Your task to perform on an android device: Open the calendar app, open the side menu, and click the "Day" option Image 0: 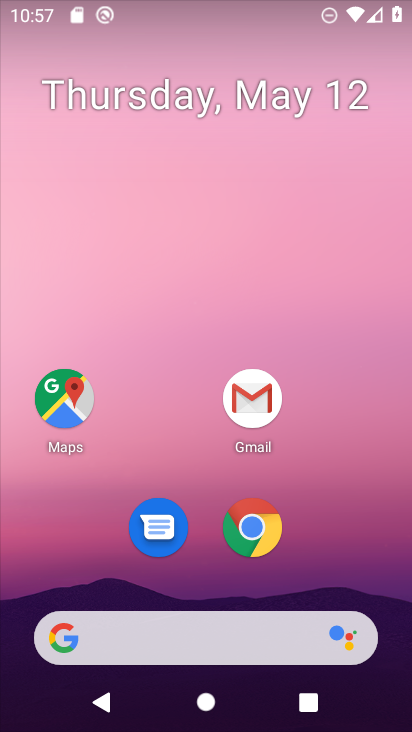
Step 0: drag from (335, 539) to (335, 56)
Your task to perform on an android device: Open the calendar app, open the side menu, and click the "Day" option Image 1: 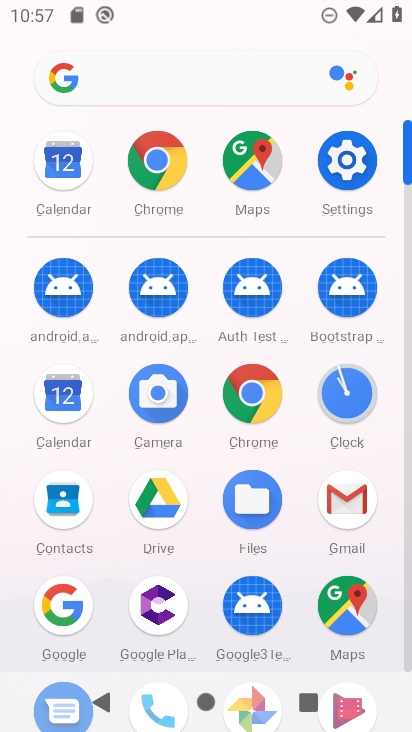
Step 1: click (348, 178)
Your task to perform on an android device: Open the calendar app, open the side menu, and click the "Day" option Image 2: 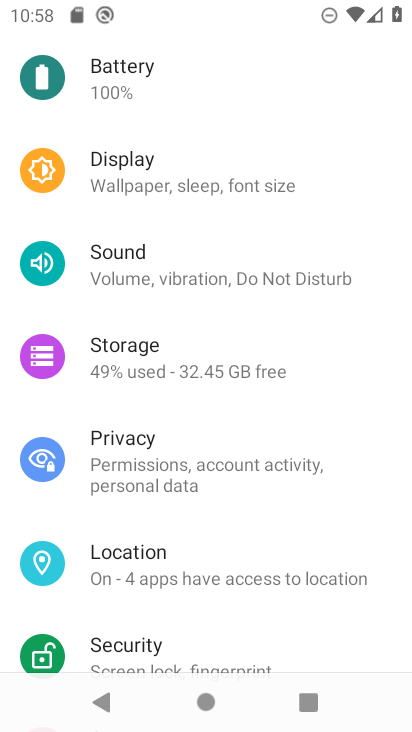
Step 2: press home button
Your task to perform on an android device: Open the calendar app, open the side menu, and click the "Day" option Image 3: 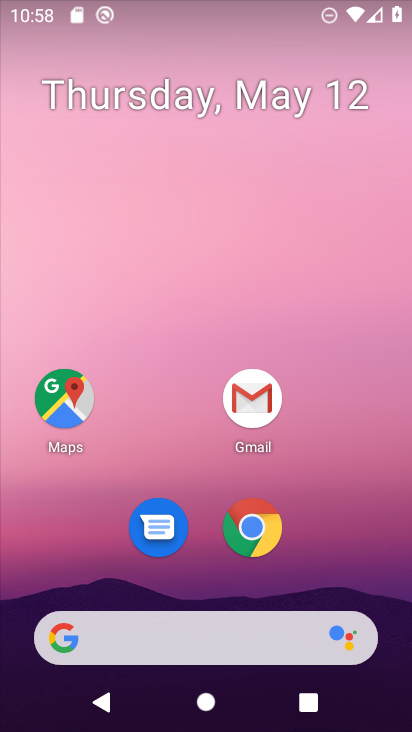
Step 3: drag from (329, 551) to (335, 37)
Your task to perform on an android device: Open the calendar app, open the side menu, and click the "Day" option Image 4: 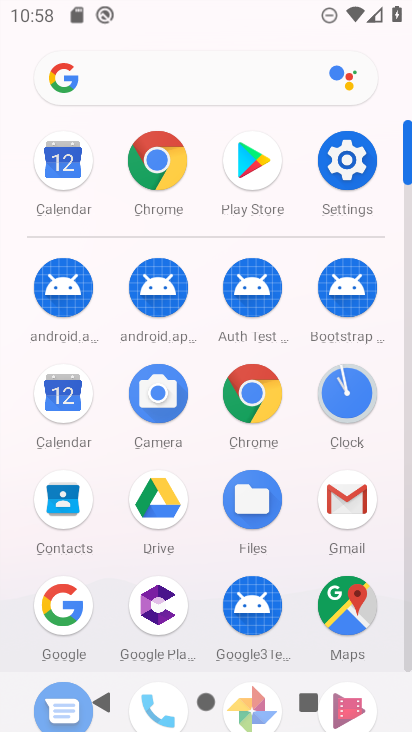
Step 4: click (49, 412)
Your task to perform on an android device: Open the calendar app, open the side menu, and click the "Day" option Image 5: 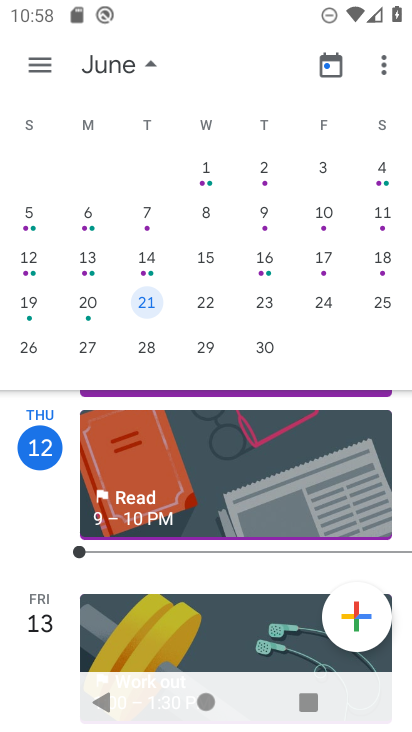
Step 5: click (33, 61)
Your task to perform on an android device: Open the calendar app, open the side menu, and click the "Day" option Image 6: 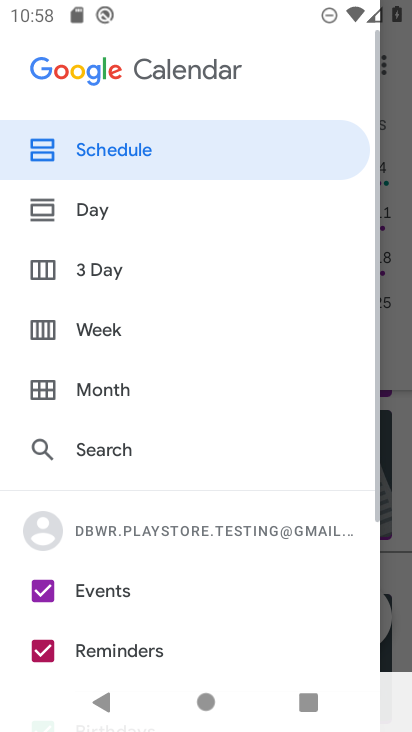
Step 6: click (69, 219)
Your task to perform on an android device: Open the calendar app, open the side menu, and click the "Day" option Image 7: 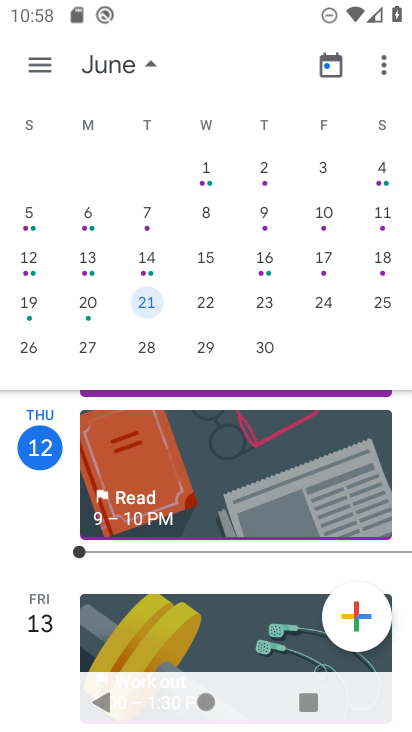
Step 7: task complete